Your task to perform on an android device: Show me productivity apps on the Play Store Image 0: 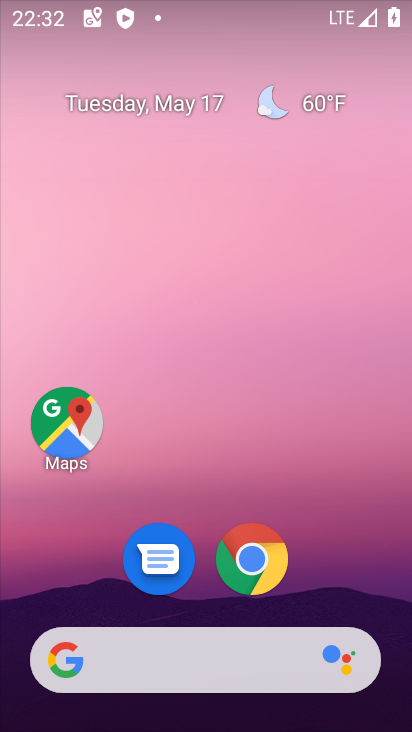
Step 0: drag from (324, 357) to (319, 47)
Your task to perform on an android device: Show me productivity apps on the Play Store Image 1: 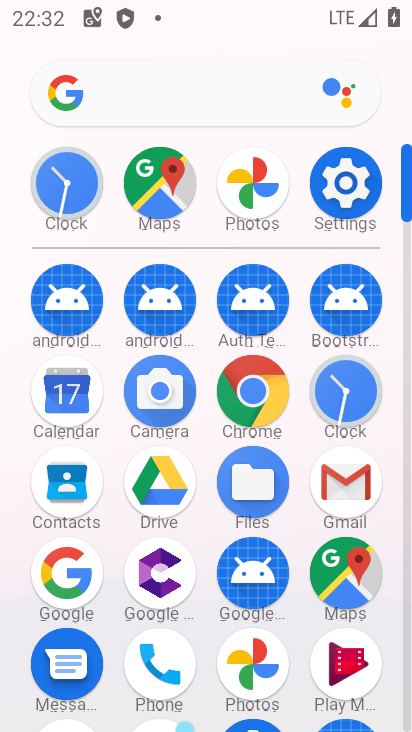
Step 1: drag from (307, 639) to (291, 258)
Your task to perform on an android device: Show me productivity apps on the Play Store Image 2: 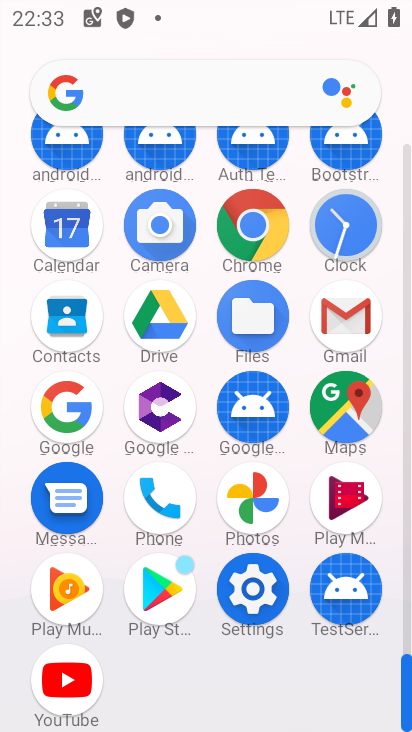
Step 2: click (162, 585)
Your task to perform on an android device: Show me productivity apps on the Play Store Image 3: 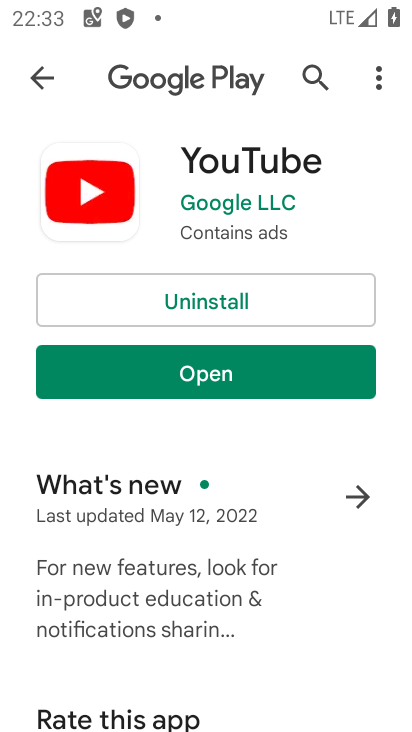
Step 3: click (43, 59)
Your task to perform on an android device: Show me productivity apps on the Play Store Image 4: 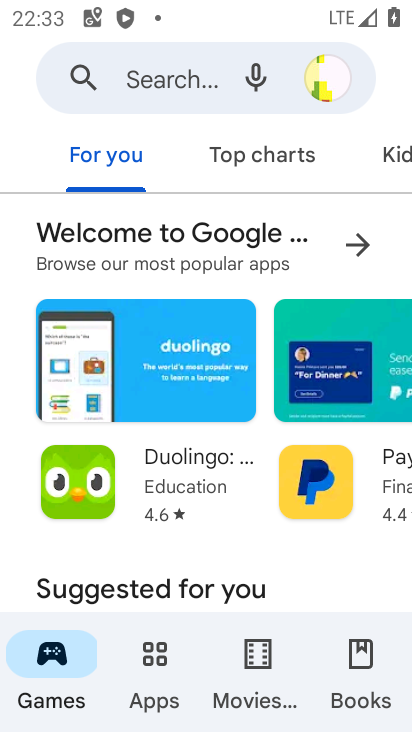
Step 4: click (164, 668)
Your task to perform on an android device: Show me productivity apps on the Play Store Image 5: 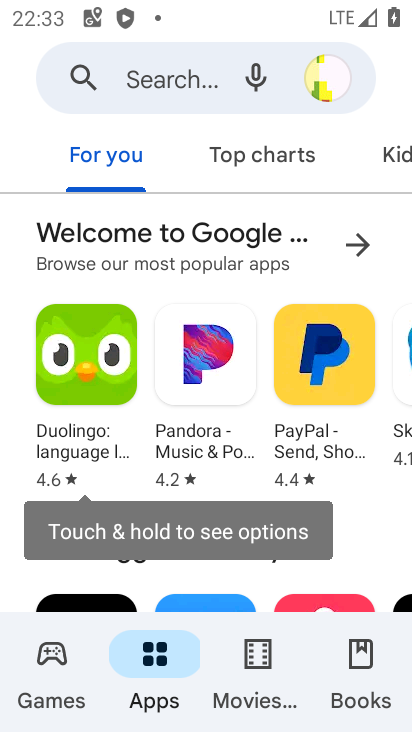
Step 5: drag from (216, 563) to (312, 163)
Your task to perform on an android device: Show me productivity apps on the Play Store Image 6: 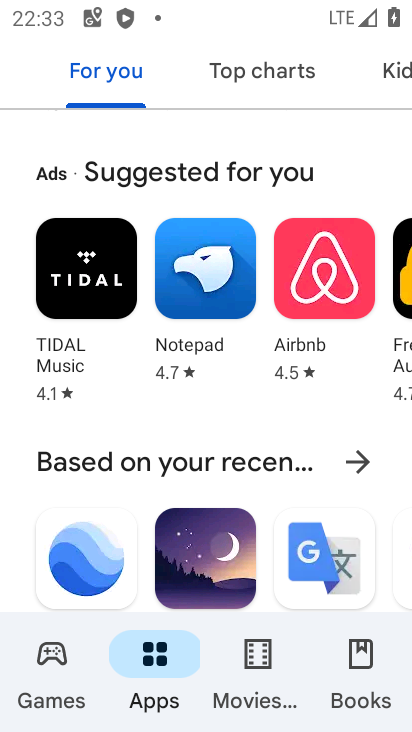
Step 6: drag from (255, 602) to (380, 131)
Your task to perform on an android device: Show me productivity apps on the Play Store Image 7: 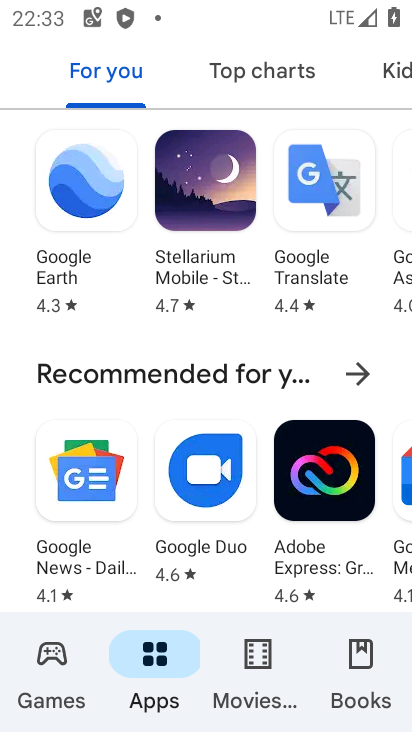
Step 7: drag from (246, 576) to (312, 212)
Your task to perform on an android device: Show me productivity apps on the Play Store Image 8: 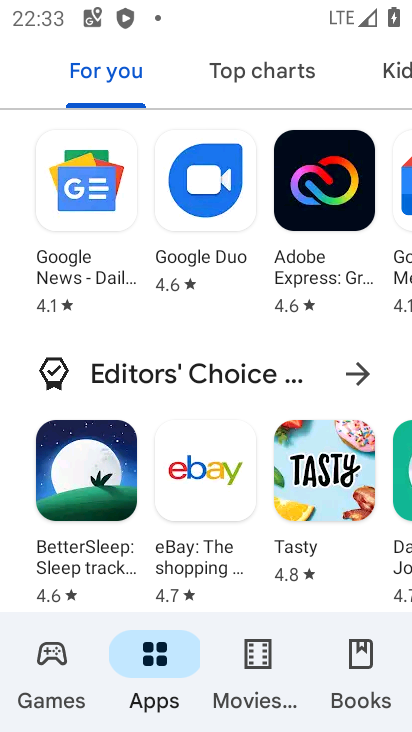
Step 8: drag from (180, 568) to (270, 226)
Your task to perform on an android device: Show me productivity apps on the Play Store Image 9: 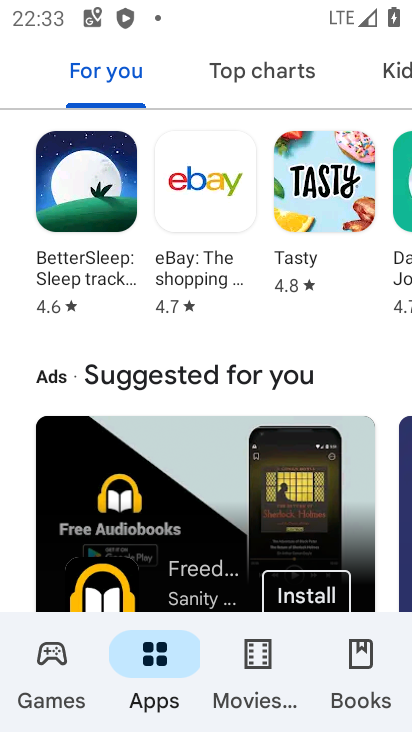
Step 9: drag from (247, 589) to (318, 250)
Your task to perform on an android device: Show me productivity apps on the Play Store Image 10: 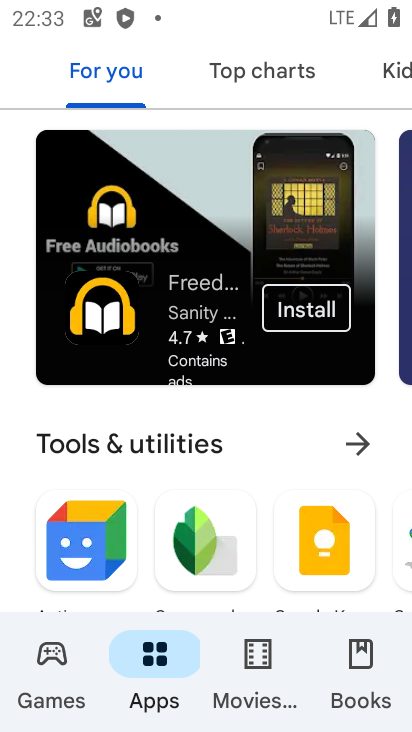
Step 10: drag from (147, 593) to (276, 104)
Your task to perform on an android device: Show me productivity apps on the Play Store Image 11: 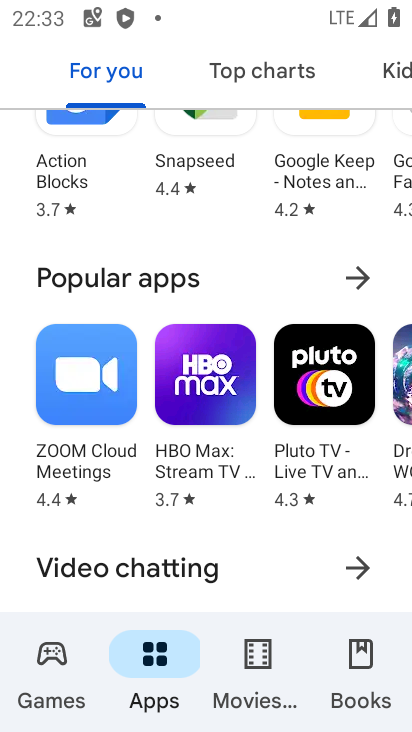
Step 11: drag from (180, 548) to (276, 165)
Your task to perform on an android device: Show me productivity apps on the Play Store Image 12: 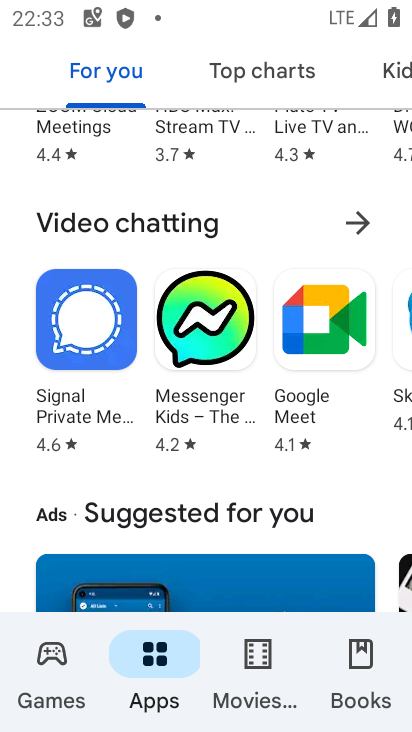
Step 12: drag from (218, 532) to (269, 178)
Your task to perform on an android device: Show me productivity apps on the Play Store Image 13: 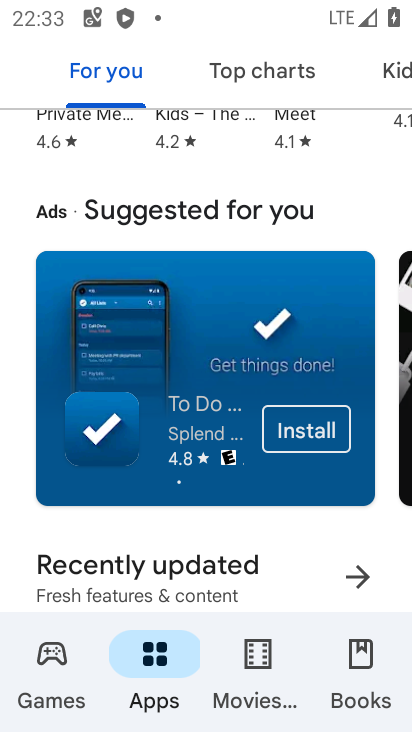
Step 13: click (268, 175)
Your task to perform on an android device: Show me productivity apps on the Play Store Image 14: 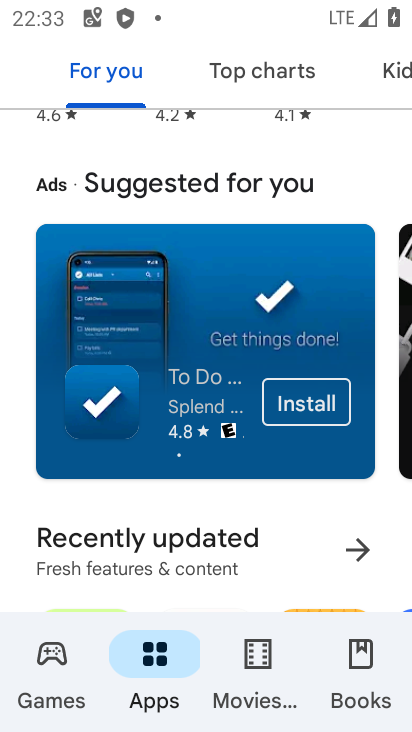
Step 14: drag from (219, 556) to (266, 190)
Your task to perform on an android device: Show me productivity apps on the Play Store Image 15: 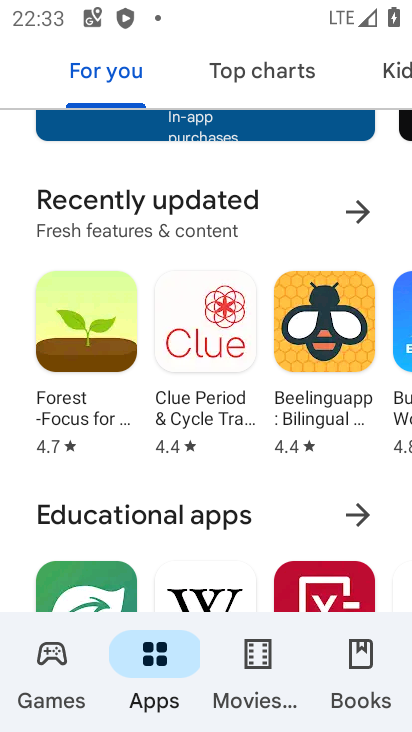
Step 15: drag from (223, 512) to (330, 145)
Your task to perform on an android device: Show me productivity apps on the Play Store Image 16: 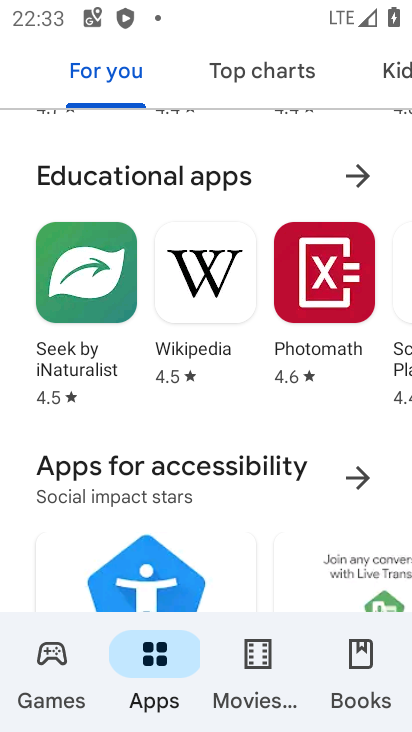
Step 16: drag from (238, 555) to (352, 140)
Your task to perform on an android device: Show me productivity apps on the Play Store Image 17: 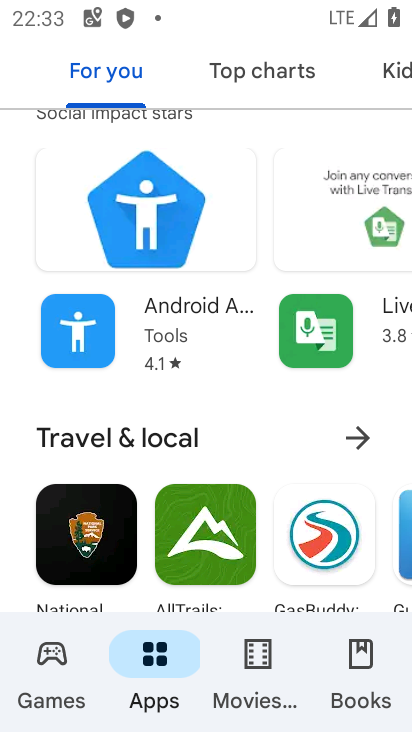
Step 17: click (352, 140)
Your task to perform on an android device: Show me productivity apps on the Play Store Image 18: 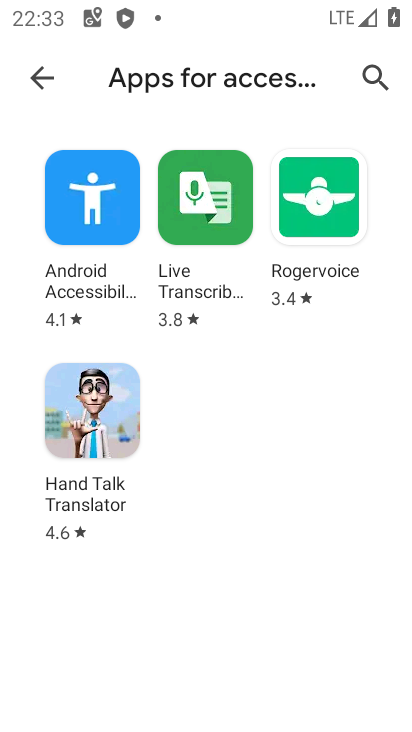
Step 18: drag from (239, 576) to (268, 421)
Your task to perform on an android device: Show me productivity apps on the Play Store Image 19: 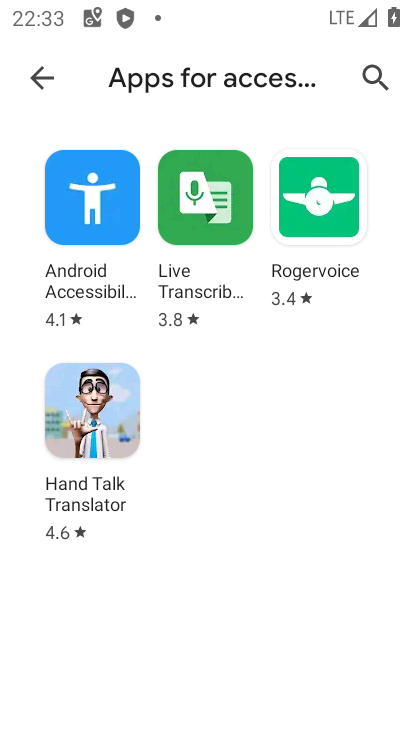
Step 19: click (39, 76)
Your task to perform on an android device: Show me productivity apps on the Play Store Image 20: 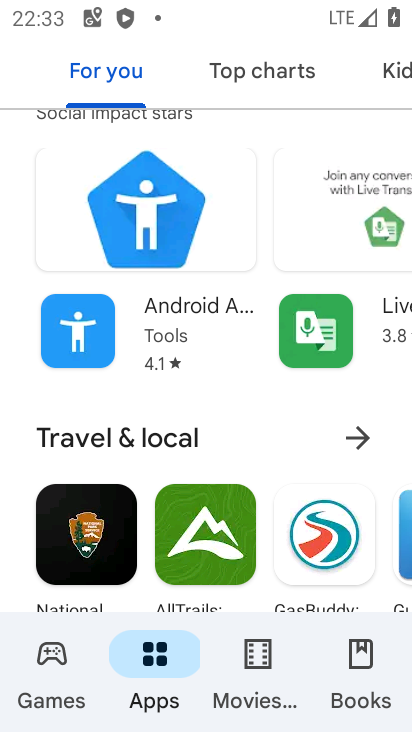
Step 20: drag from (225, 598) to (282, 133)
Your task to perform on an android device: Show me productivity apps on the Play Store Image 21: 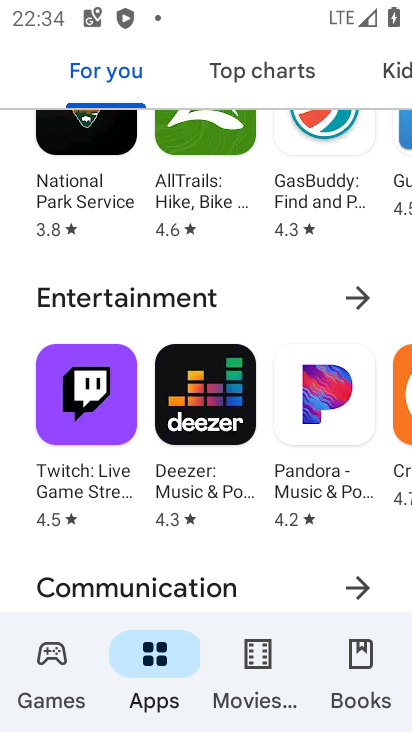
Step 21: drag from (210, 567) to (325, 179)
Your task to perform on an android device: Show me productivity apps on the Play Store Image 22: 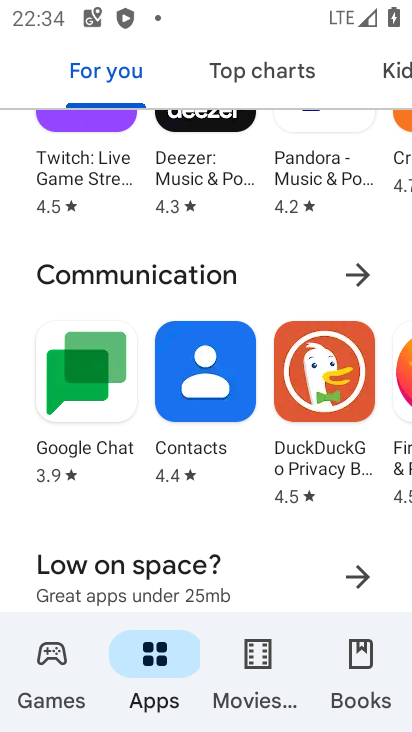
Step 22: drag from (241, 531) to (311, 275)
Your task to perform on an android device: Show me productivity apps on the Play Store Image 23: 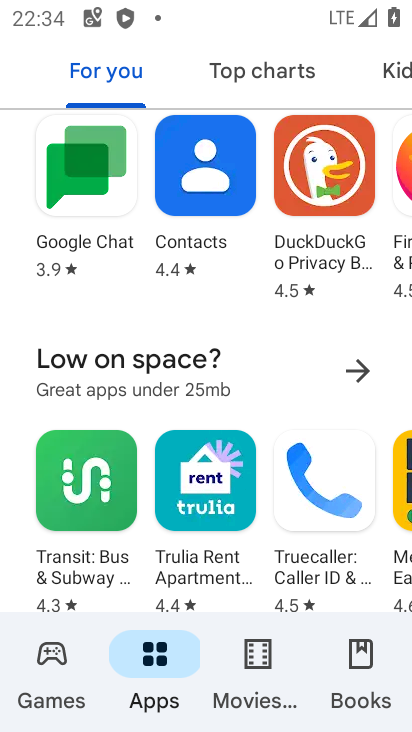
Step 23: click (308, 248)
Your task to perform on an android device: Show me productivity apps on the Play Store Image 24: 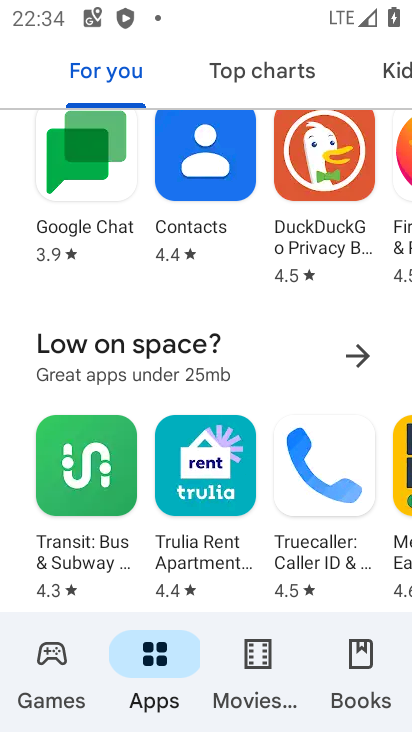
Step 24: click (295, 220)
Your task to perform on an android device: Show me productivity apps on the Play Store Image 25: 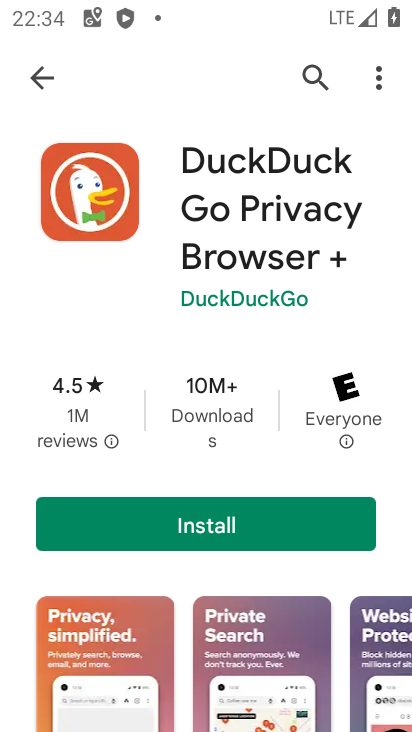
Step 25: click (46, 73)
Your task to perform on an android device: Show me productivity apps on the Play Store Image 26: 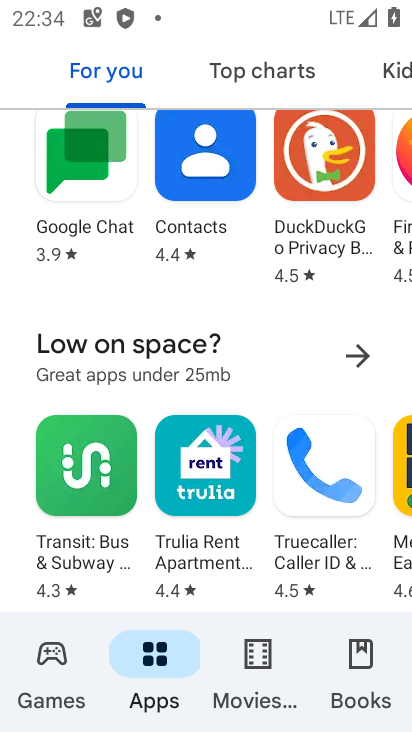
Step 26: task complete